Your task to perform on an android device: delete the emails in spam in the gmail app Image 0: 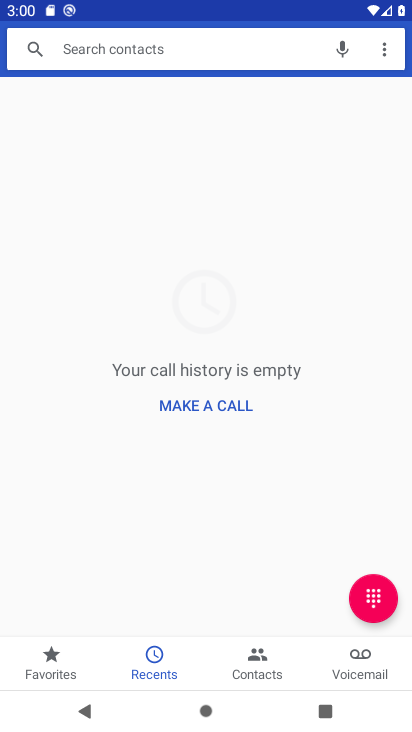
Step 0: press home button
Your task to perform on an android device: delete the emails in spam in the gmail app Image 1: 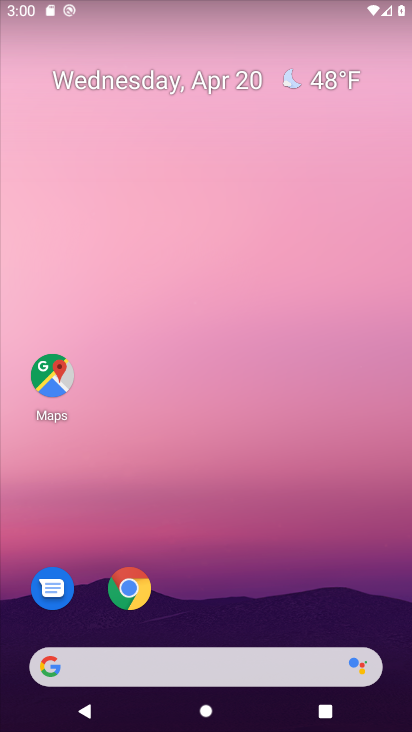
Step 1: drag from (333, 595) to (338, 186)
Your task to perform on an android device: delete the emails in spam in the gmail app Image 2: 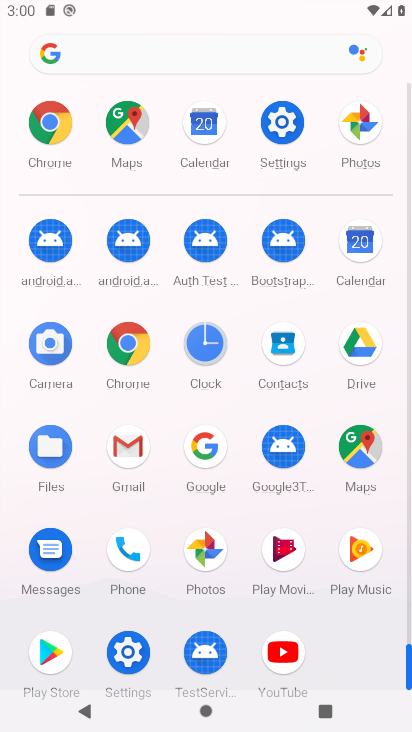
Step 2: click (123, 452)
Your task to perform on an android device: delete the emails in spam in the gmail app Image 3: 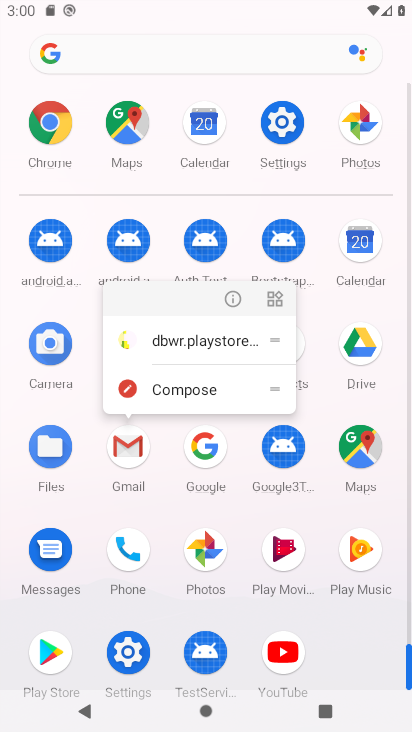
Step 3: click (126, 450)
Your task to perform on an android device: delete the emails in spam in the gmail app Image 4: 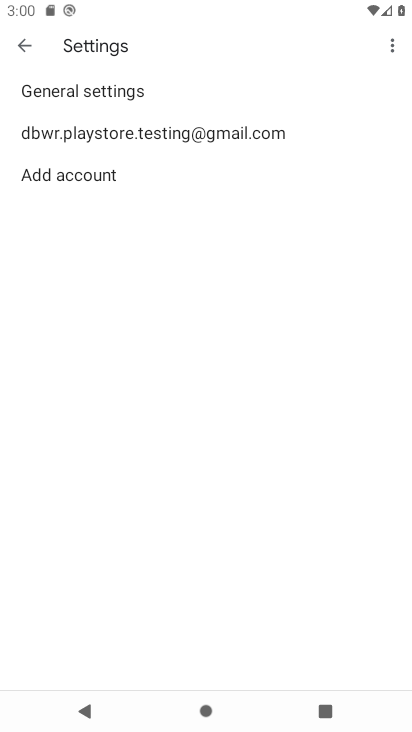
Step 4: click (23, 46)
Your task to perform on an android device: delete the emails in spam in the gmail app Image 5: 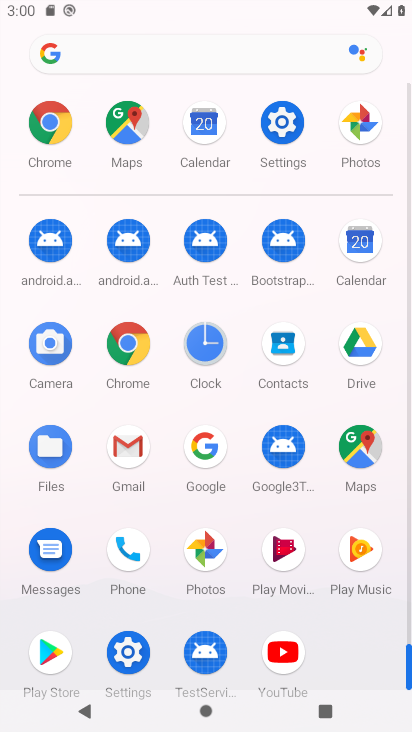
Step 5: click (131, 448)
Your task to perform on an android device: delete the emails in spam in the gmail app Image 6: 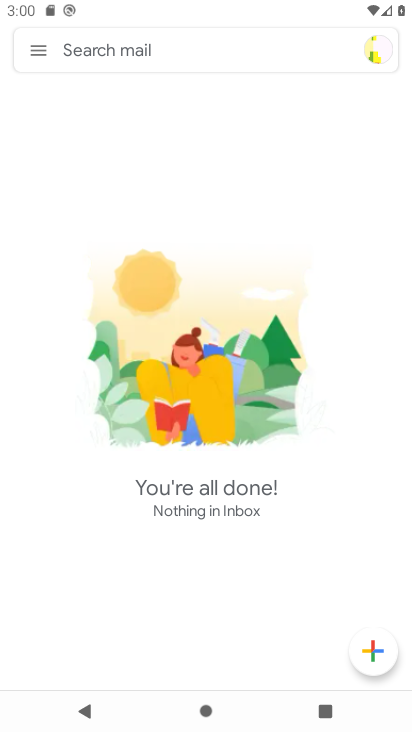
Step 6: task complete